Your task to perform on an android device: Go to Google Image 0: 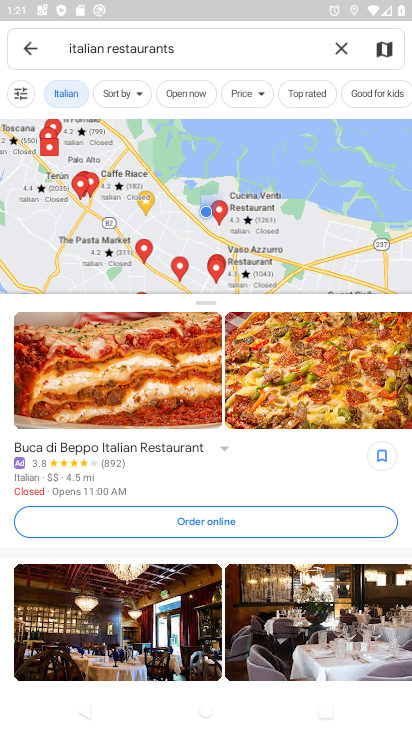
Step 0: press home button
Your task to perform on an android device: Go to Google Image 1: 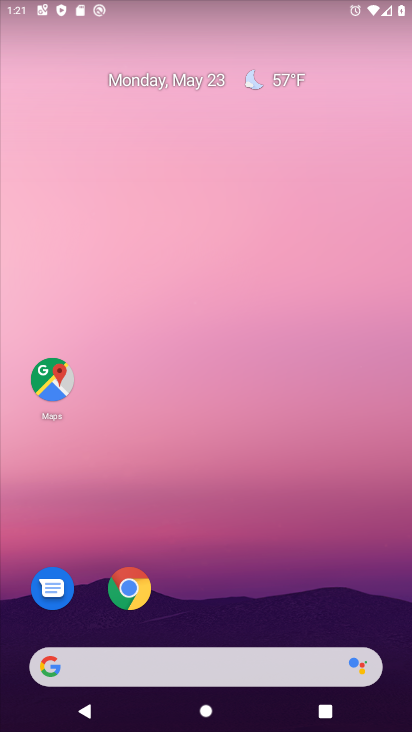
Step 1: drag from (232, 627) to (170, 123)
Your task to perform on an android device: Go to Google Image 2: 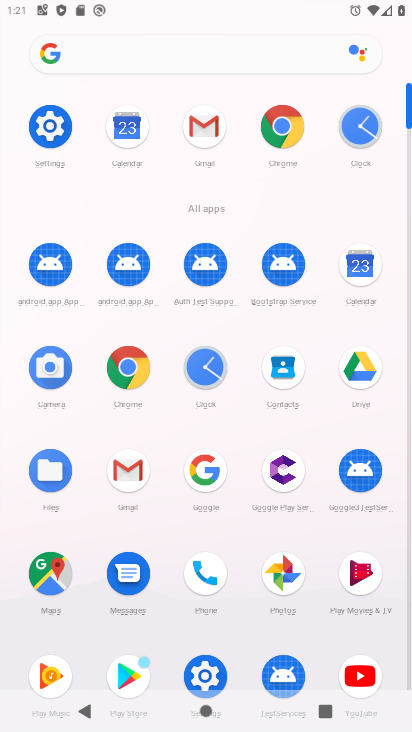
Step 2: click (205, 481)
Your task to perform on an android device: Go to Google Image 3: 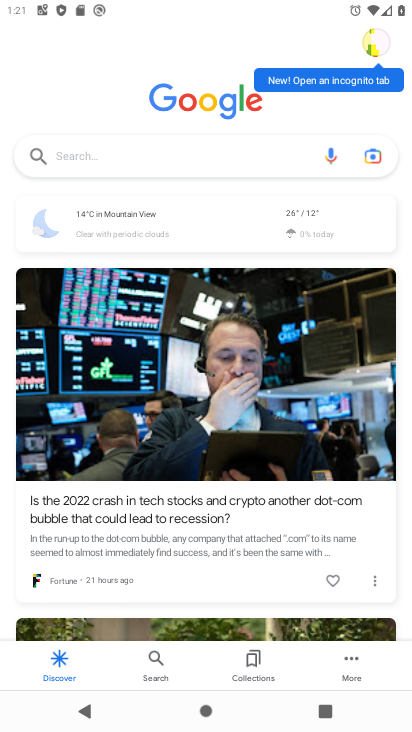
Step 3: task complete